Your task to perform on an android device: turn on airplane mode Image 0: 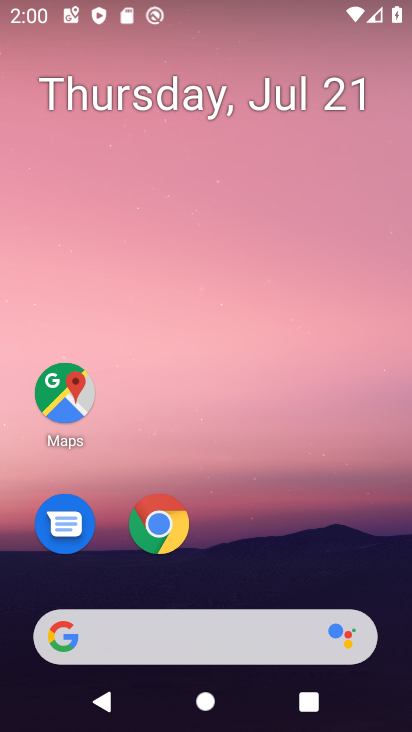
Step 0: drag from (283, 525) to (255, 23)
Your task to perform on an android device: turn on airplane mode Image 1: 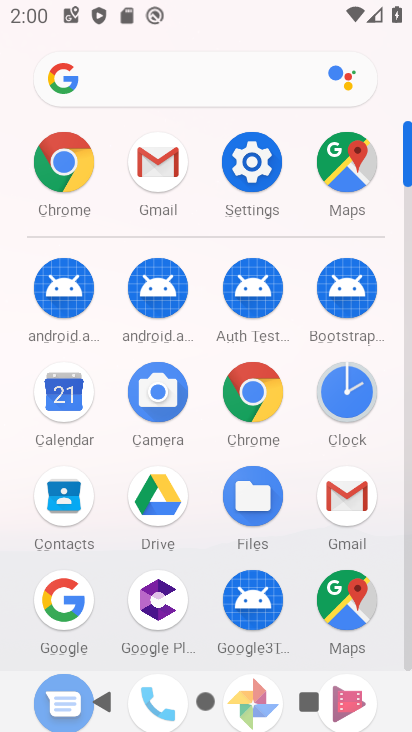
Step 1: click (257, 151)
Your task to perform on an android device: turn on airplane mode Image 2: 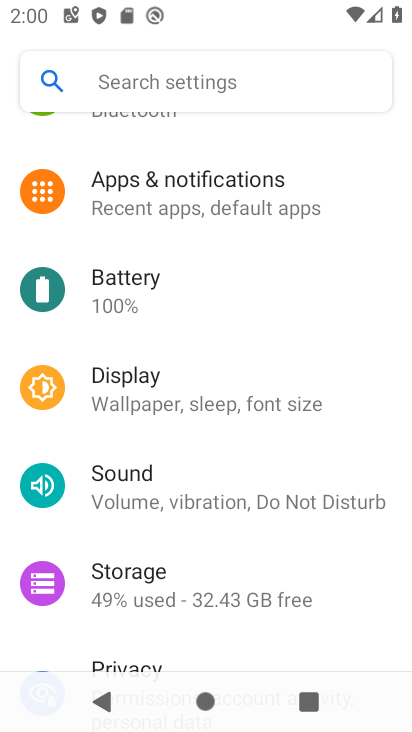
Step 2: drag from (251, 160) to (245, 630)
Your task to perform on an android device: turn on airplane mode Image 3: 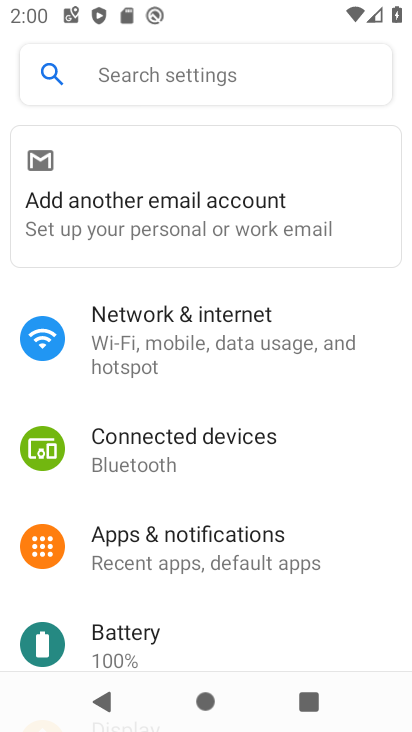
Step 3: click (266, 329)
Your task to perform on an android device: turn on airplane mode Image 4: 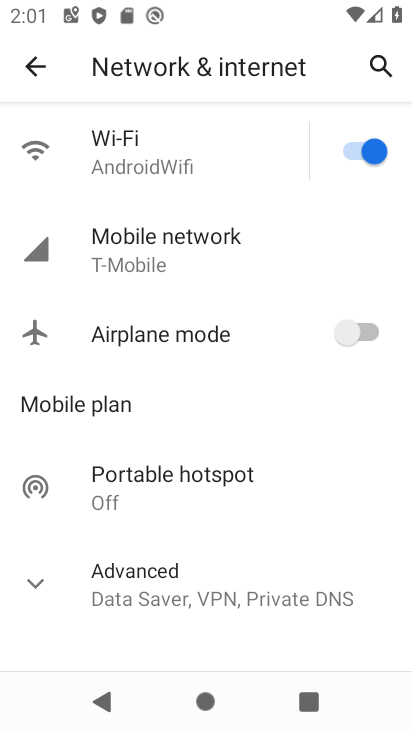
Step 4: click (358, 324)
Your task to perform on an android device: turn on airplane mode Image 5: 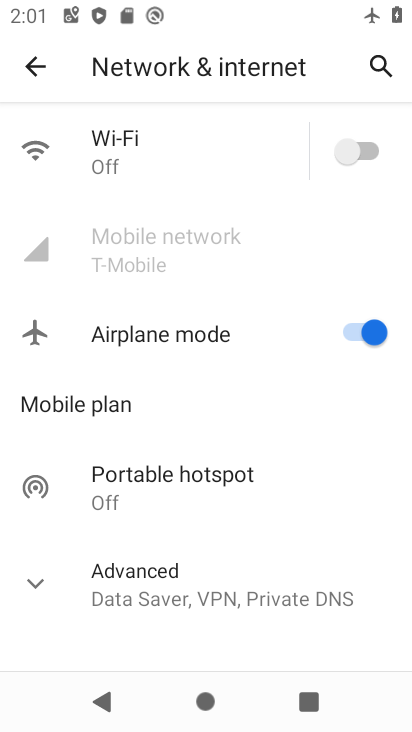
Step 5: task complete